Your task to perform on an android device: Show me productivity apps on the Play Store Image 0: 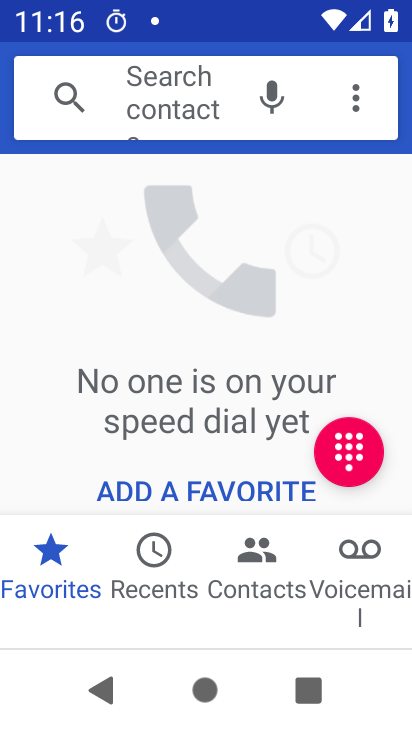
Step 0: press home button
Your task to perform on an android device: Show me productivity apps on the Play Store Image 1: 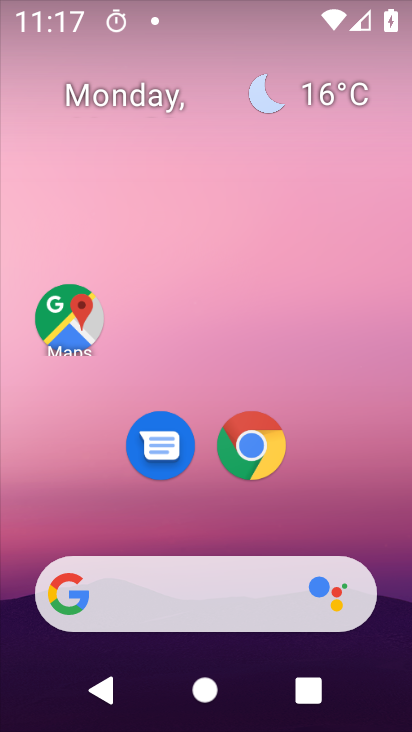
Step 1: drag from (193, 504) to (201, 1)
Your task to perform on an android device: Show me productivity apps on the Play Store Image 2: 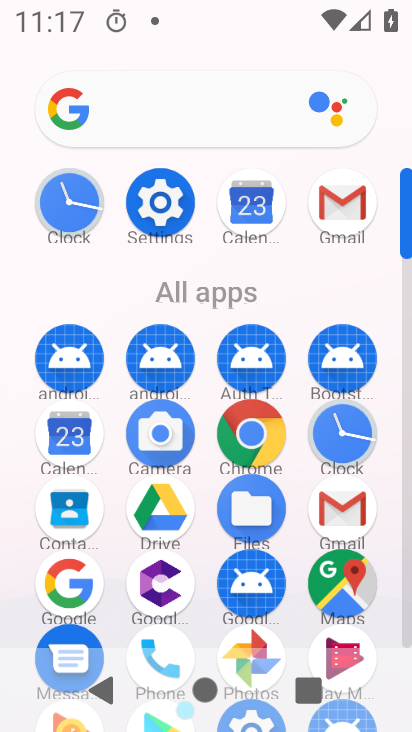
Step 2: drag from (181, 586) to (216, 309)
Your task to perform on an android device: Show me productivity apps on the Play Store Image 3: 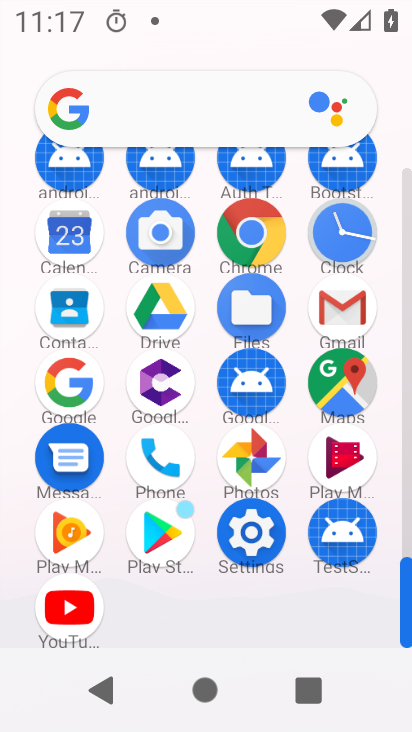
Step 3: click (172, 545)
Your task to perform on an android device: Show me productivity apps on the Play Store Image 4: 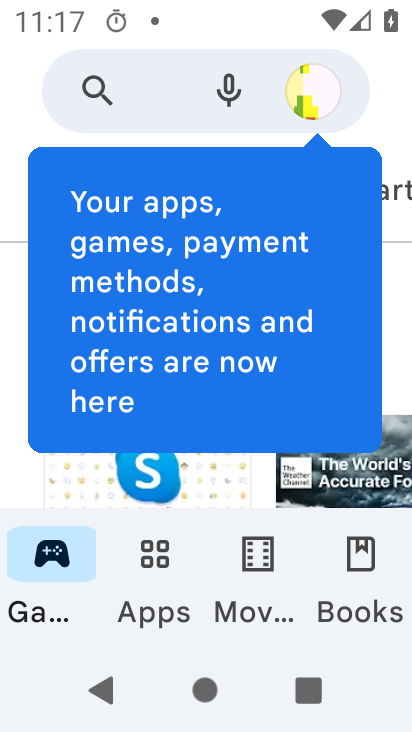
Step 4: click (151, 563)
Your task to perform on an android device: Show me productivity apps on the Play Store Image 5: 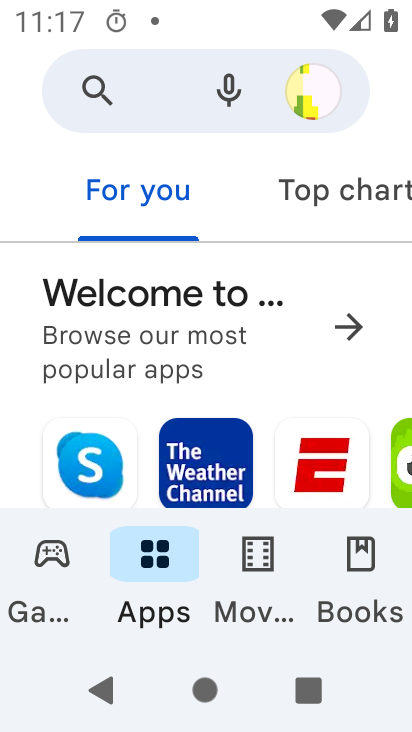
Step 5: drag from (345, 208) to (12, 192)
Your task to perform on an android device: Show me productivity apps on the Play Store Image 6: 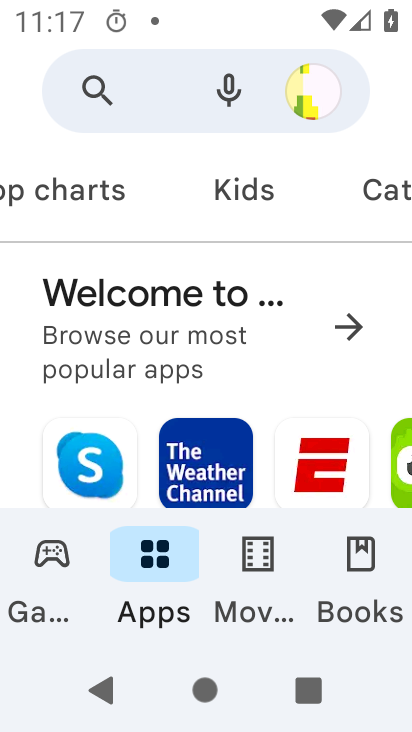
Step 6: click (383, 198)
Your task to perform on an android device: Show me productivity apps on the Play Store Image 7: 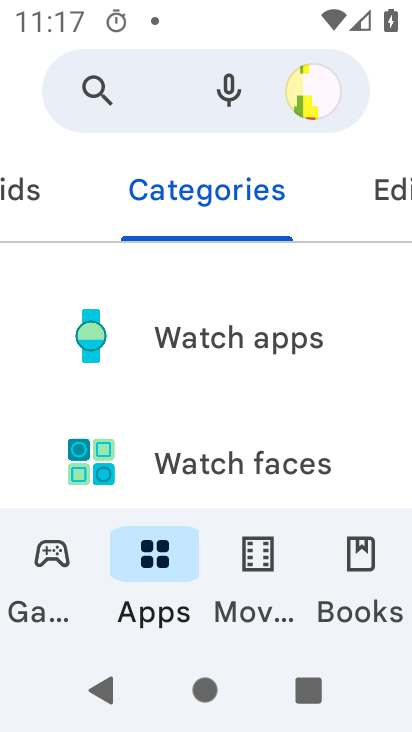
Step 7: drag from (213, 459) to (293, 0)
Your task to perform on an android device: Show me productivity apps on the Play Store Image 8: 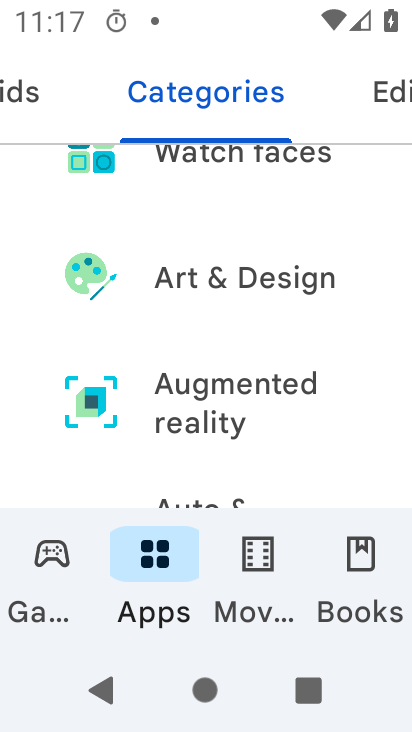
Step 8: drag from (247, 410) to (272, 11)
Your task to perform on an android device: Show me productivity apps on the Play Store Image 9: 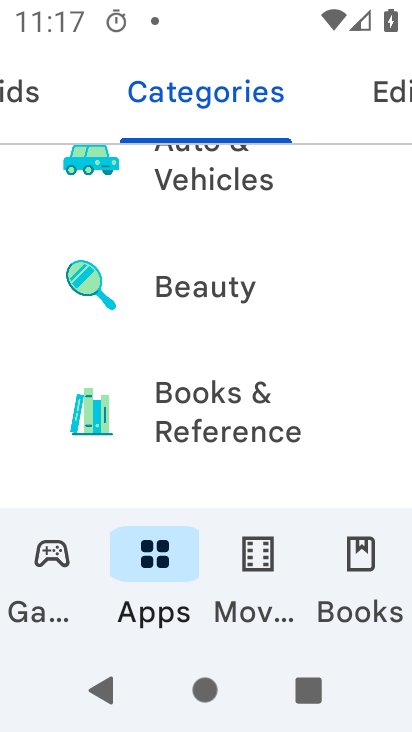
Step 9: drag from (246, 461) to (270, 0)
Your task to perform on an android device: Show me productivity apps on the Play Store Image 10: 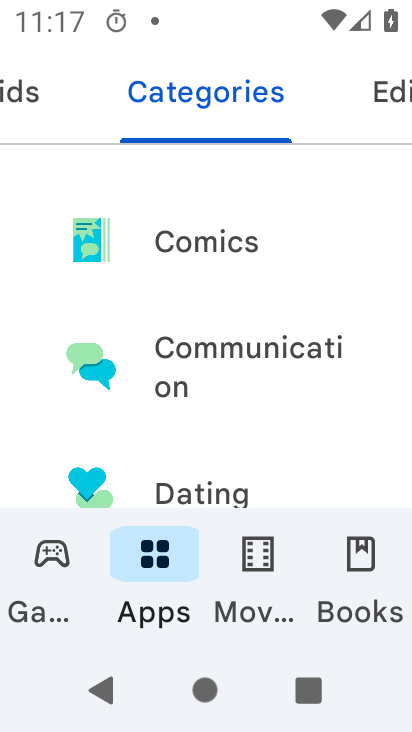
Step 10: drag from (275, 430) to (314, 63)
Your task to perform on an android device: Show me productivity apps on the Play Store Image 11: 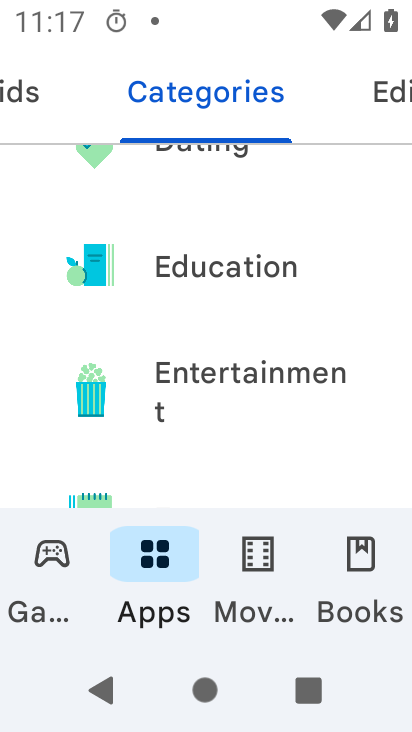
Step 11: drag from (234, 442) to (284, 0)
Your task to perform on an android device: Show me productivity apps on the Play Store Image 12: 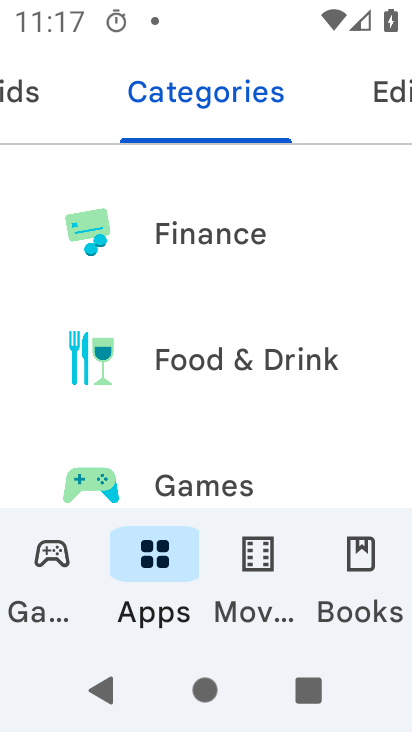
Step 12: drag from (253, 430) to (322, 12)
Your task to perform on an android device: Show me productivity apps on the Play Store Image 13: 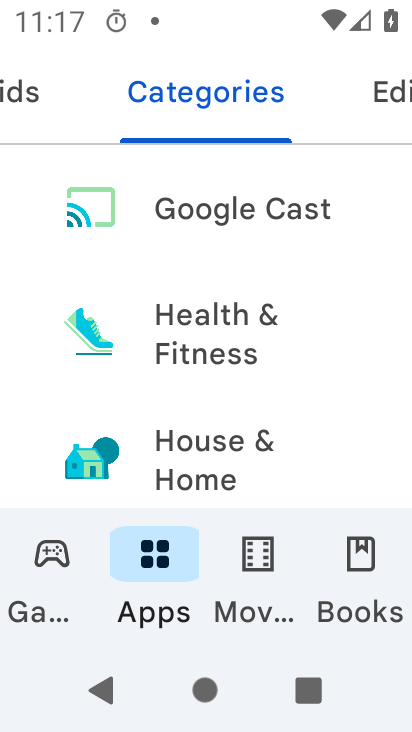
Step 13: drag from (233, 462) to (369, 0)
Your task to perform on an android device: Show me productivity apps on the Play Store Image 14: 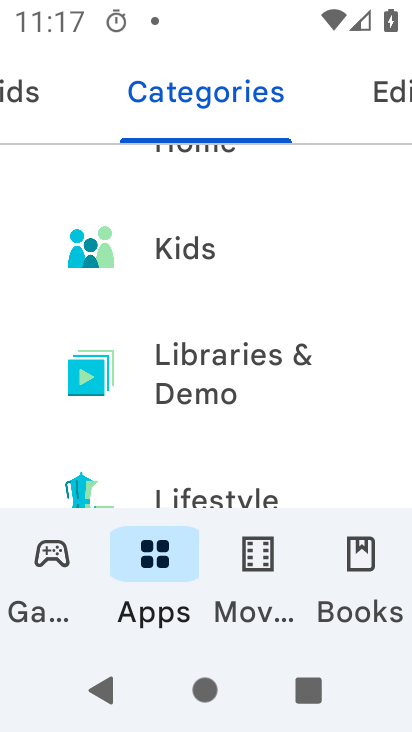
Step 14: drag from (264, 485) to (258, 1)
Your task to perform on an android device: Show me productivity apps on the Play Store Image 15: 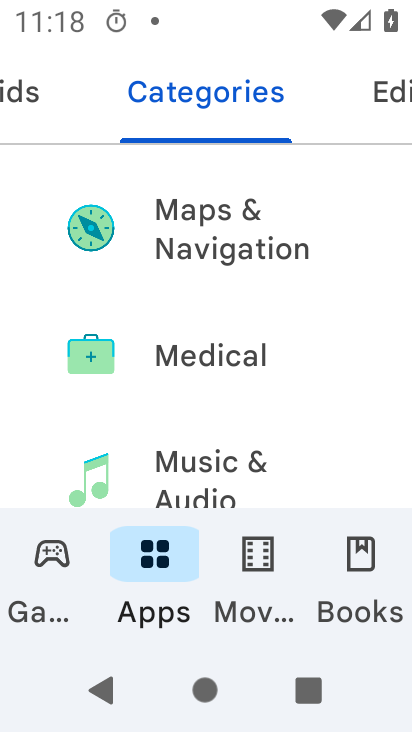
Step 15: drag from (242, 454) to (319, 9)
Your task to perform on an android device: Show me productivity apps on the Play Store Image 16: 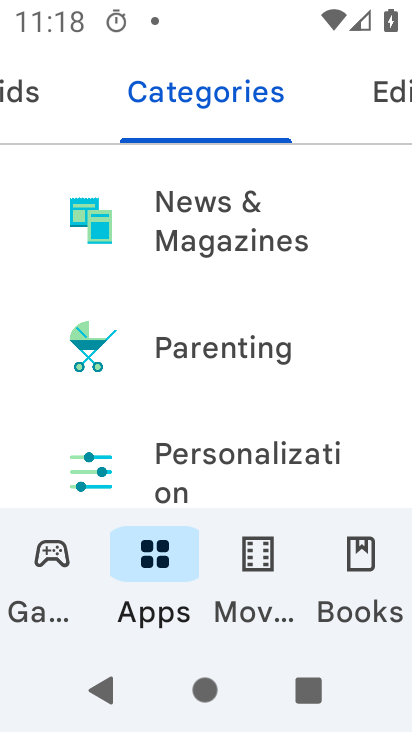
Step 16: drag from (260, 472) to (295, 67)
Your task to perform on an android device: Show me productivity apps on the Play Store Image 17: 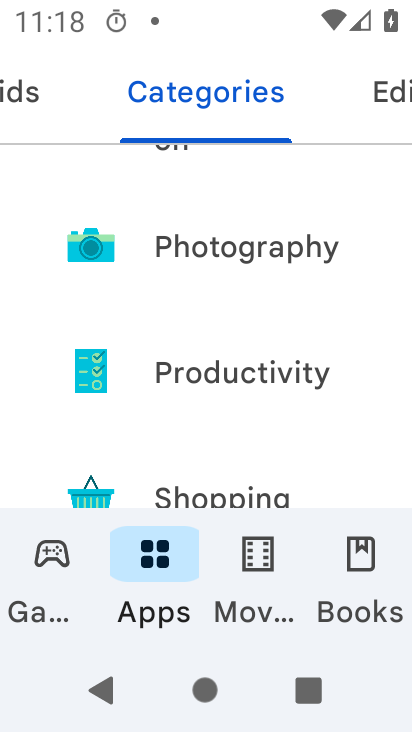
Step 17: click (260, 377)
Your task to perform on an android device: Show me productivity apps on the Play Store Image 18: 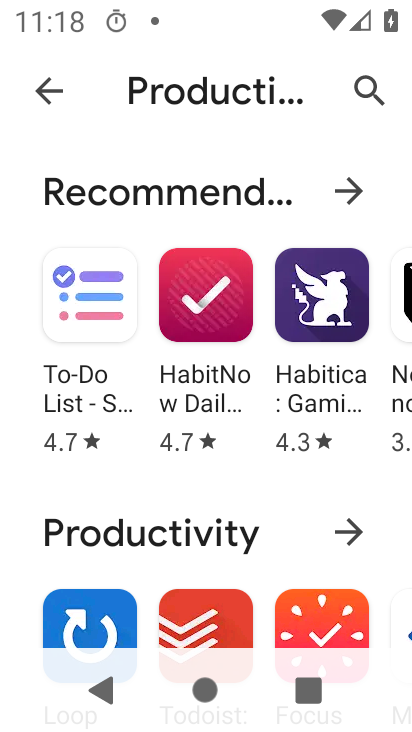
Step 18: task complete